Your task to perform on an android device: open app "Spotify: Music and Podcasts" Image 0: 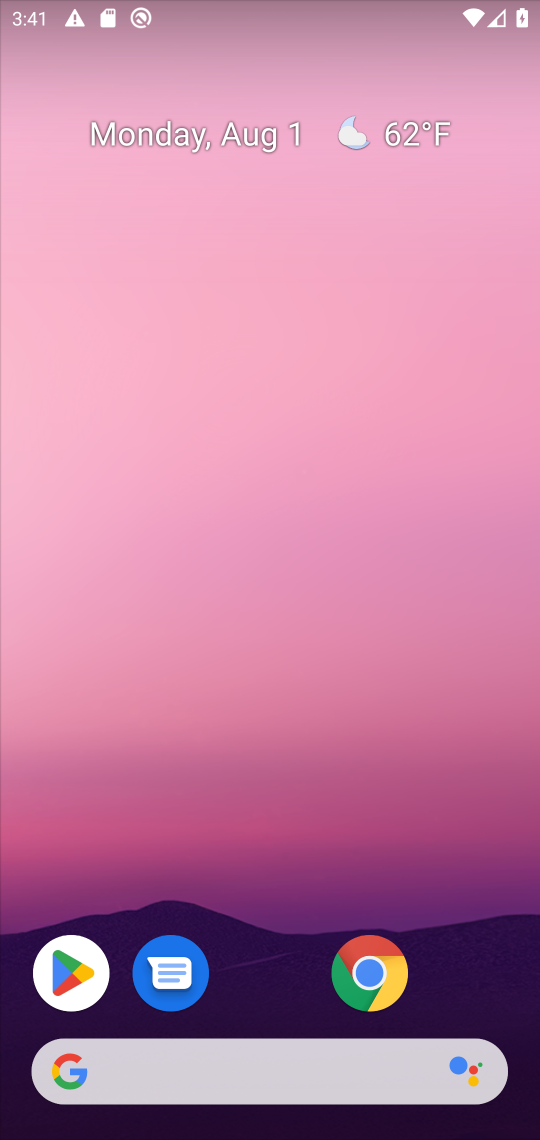
Step 0: click (267, 388)
Your task to perform on an android device: open app "Spotify: Music and Podcasts" Image 1: 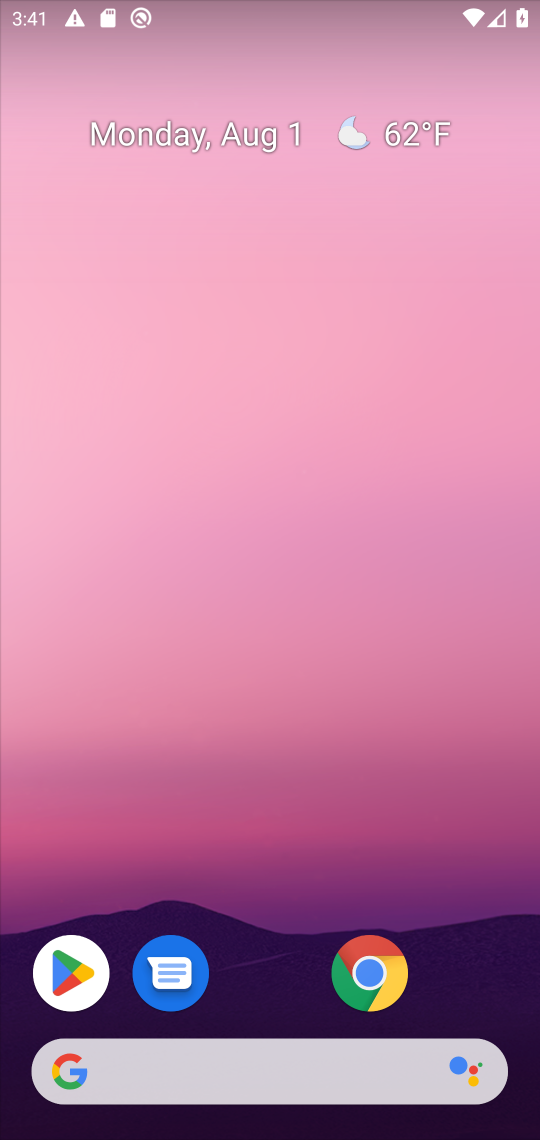
Step 1: drag from (163, 601) to (61, 142)
Your task to perform on an android device: open app "Spotify: Music and Podcasts" Image 2: 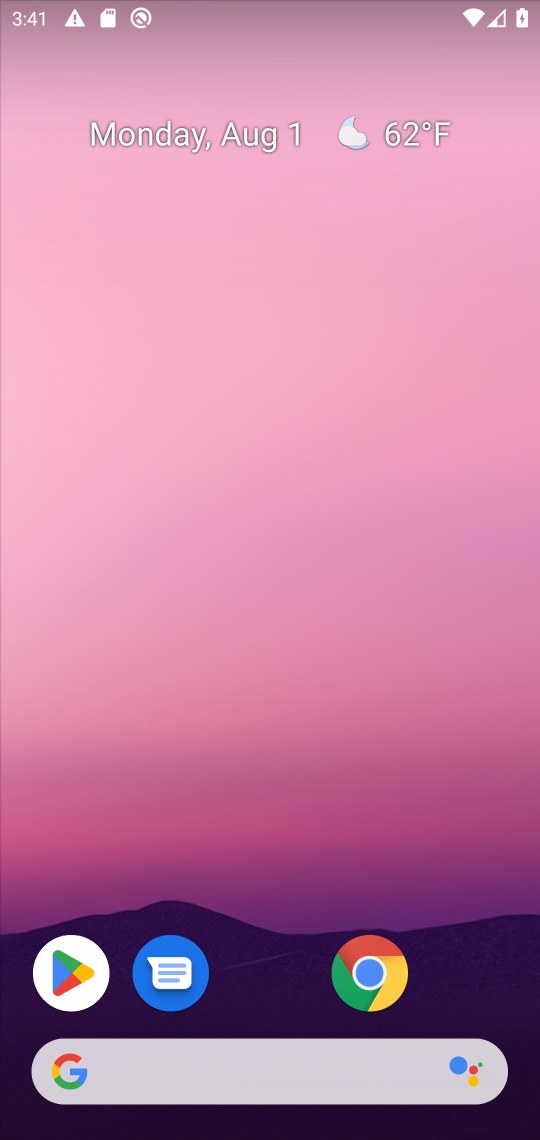
Step 2: drag from (206, 544) to (158, 185)
Your task to perform on an android device: open app "Spotify: Music and Podcasts" Image 3: 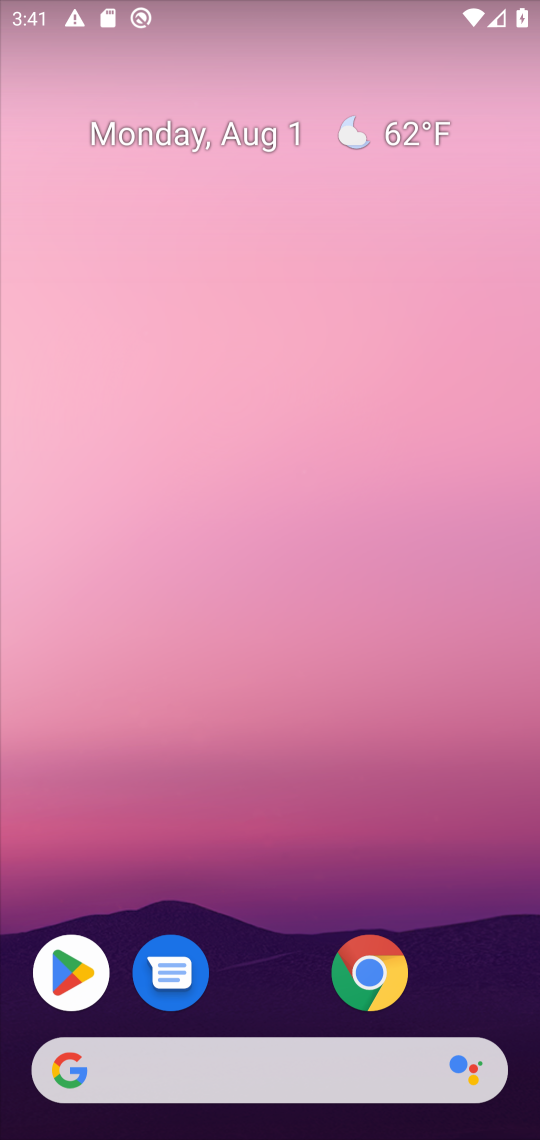
Step 3: drag from (271, 682) to (297, 201)
Your task to perform on an android device: open app "Spotify: Music and Podcasts" Image 4: 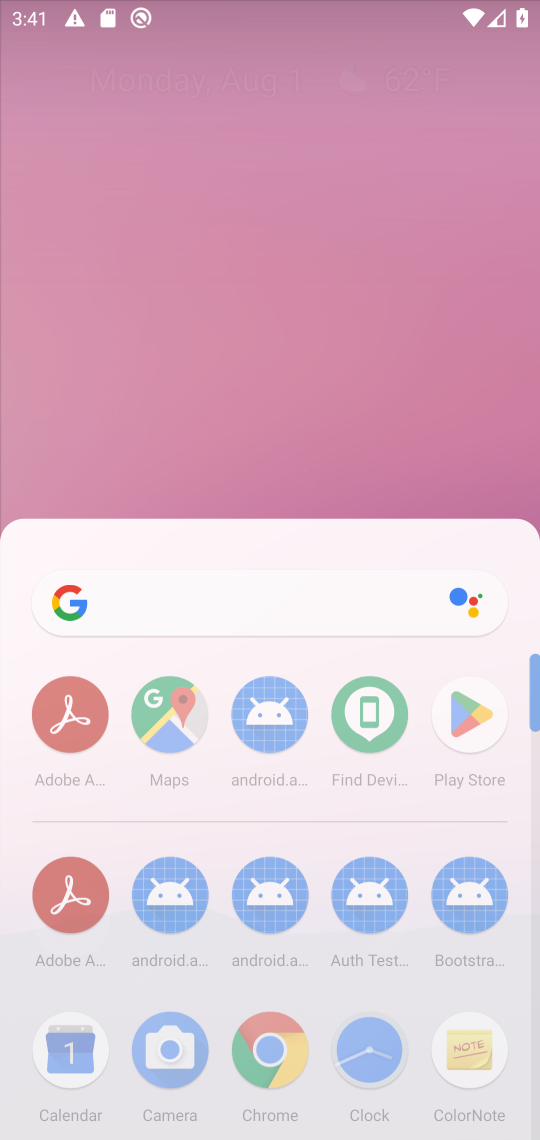
Step 4: drag from (372, 590) to (368, 288)
Your task to perform on an android device: open app "Spotify: Music and Podcasts" Image 5: 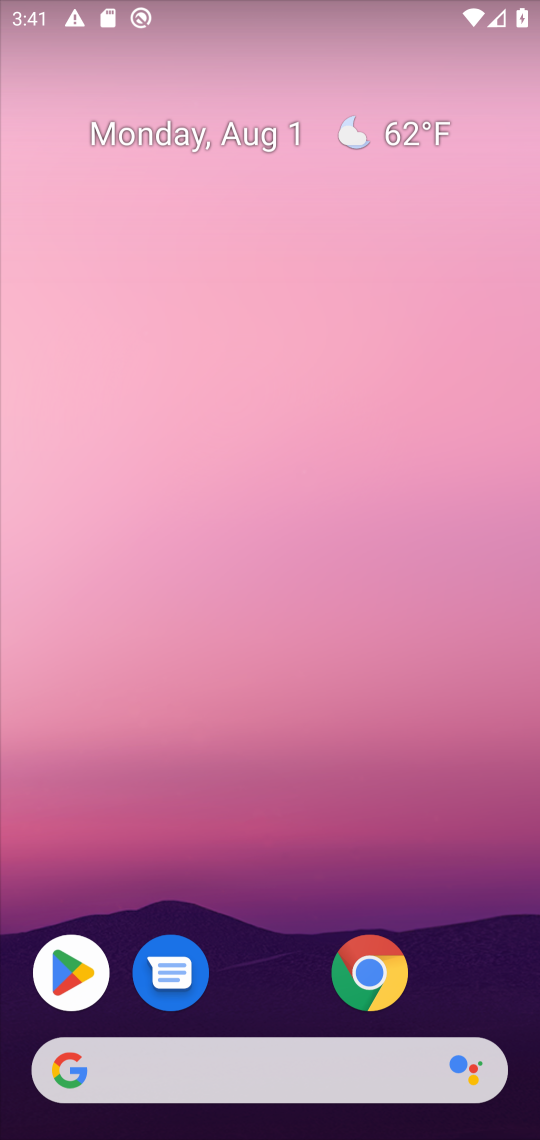
Step 5: drag from (248, 813) to (179, 254)
Your task to perform on an android device: open app "Spotify: Music and Podcasts" Image 6: 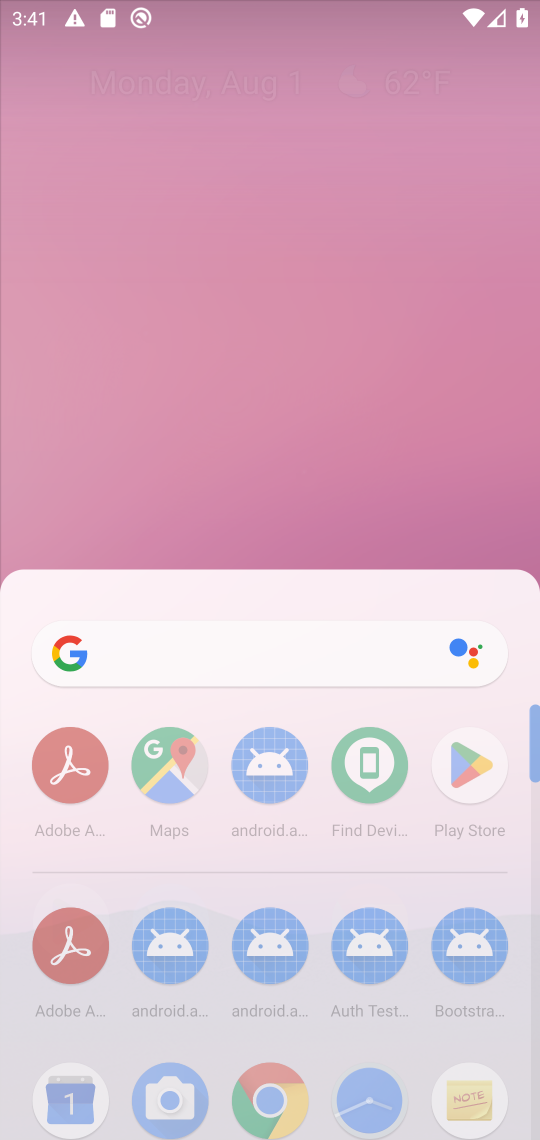
Step 6: drag from (258, 798) to (171, 324)
Your task to perform on an android device: open app "Spotify: Music and Podcasts" Image 7: 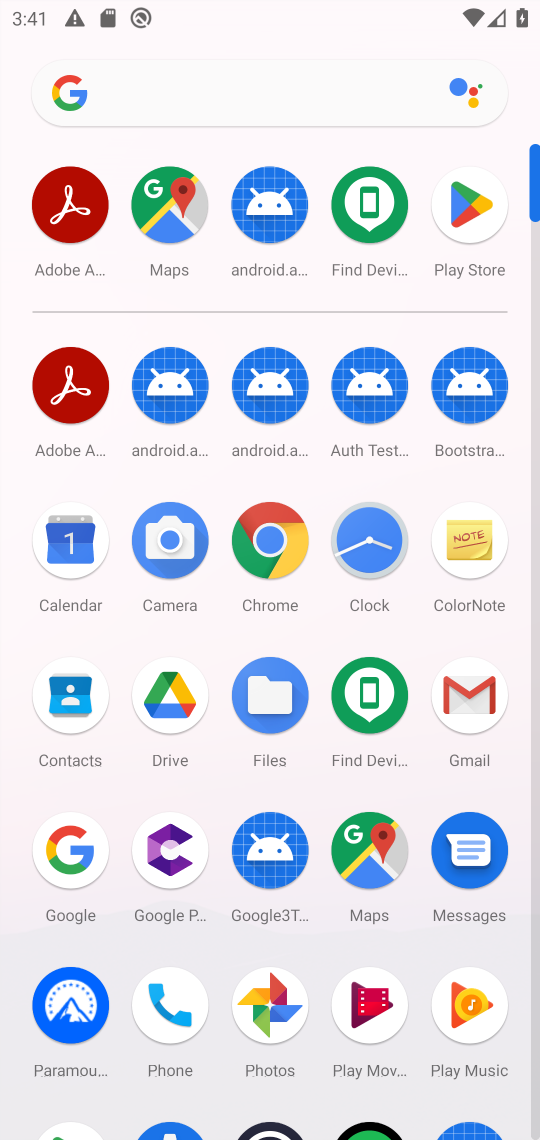
Step 7: drag from (200, 496) to (208, 258)
Your task to perform on an android device: open app "Spotify: Music and Podcasts" Image 8: 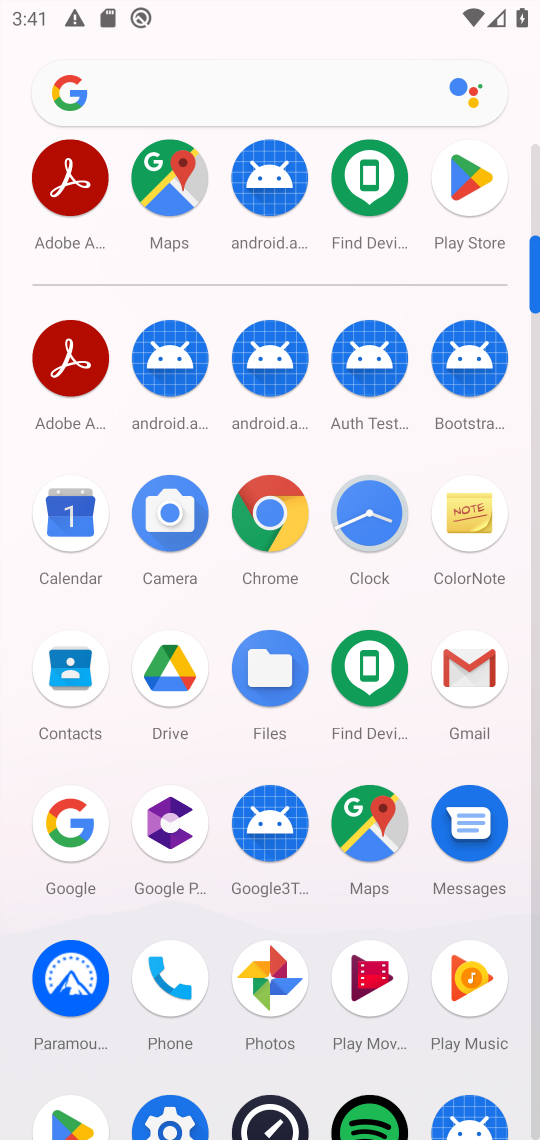
Step 8: click (471, 201)
Your task to perform on an android device: open app "Spotify: Music and Podcasts" Image 9: 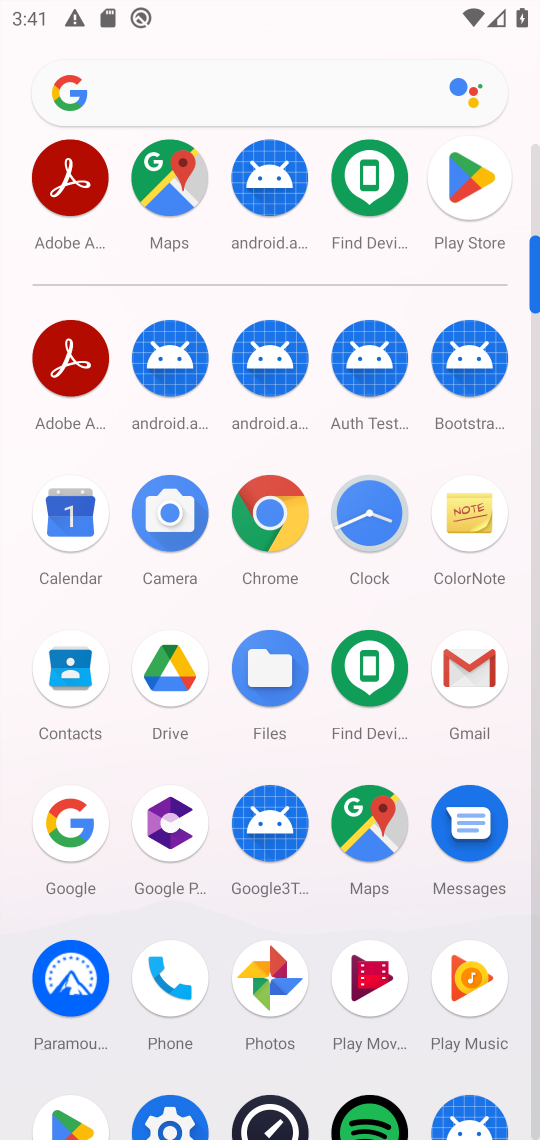
Step 9: click (467, 197)
Your task to perform on an android device: open app "Spotify: Music and Podcasts" Image 10: 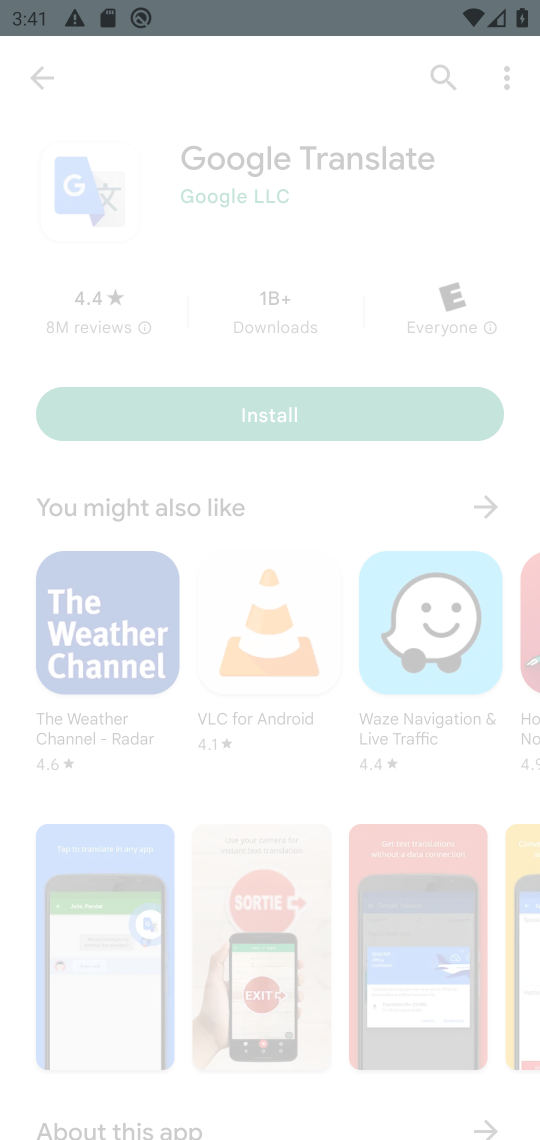
Step 10: click (463, 200)
Your task to perform on an android device: open app "Spotify: Music and Podcasts" Image 11: 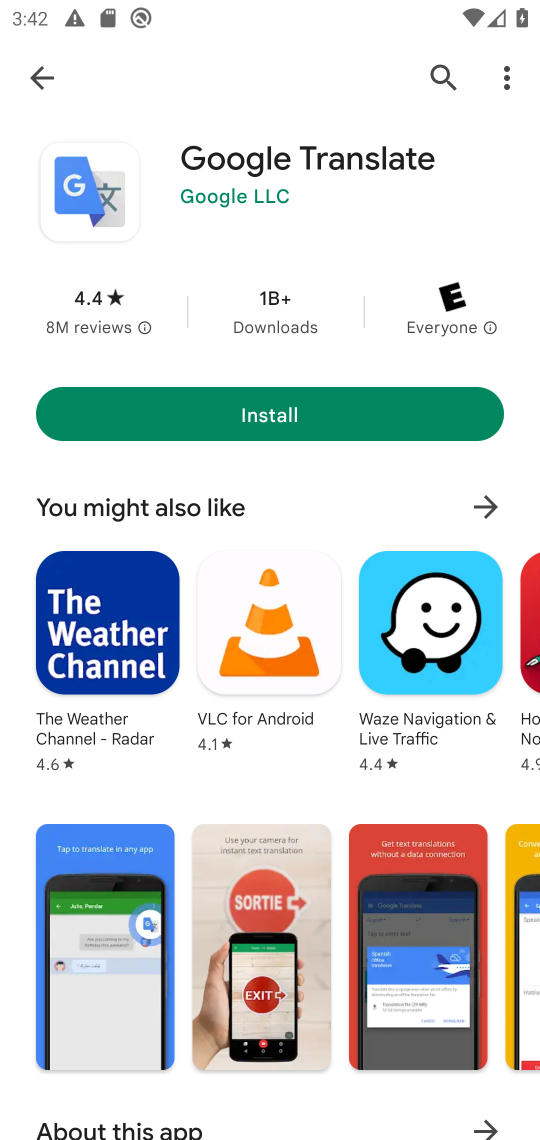
Step 11: click (45, 84)
Your task to perform on an android device: open app "Spotify: Music and Podcasts" Image 12: 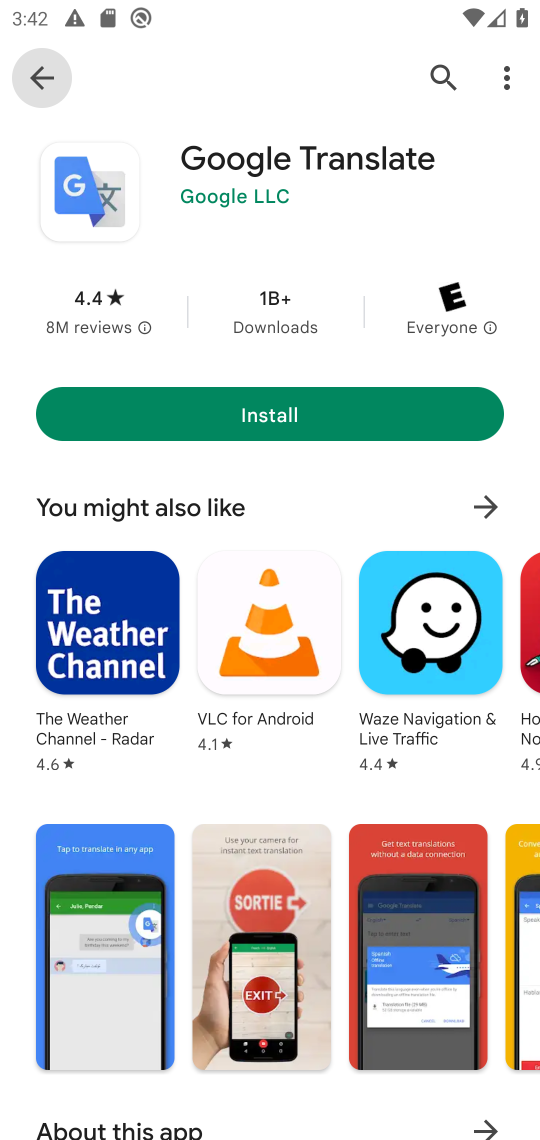
Step 12: click (42, 88)
Your task to perform on an android device: open app "Spotify: Music and Podcasts" Image 13: 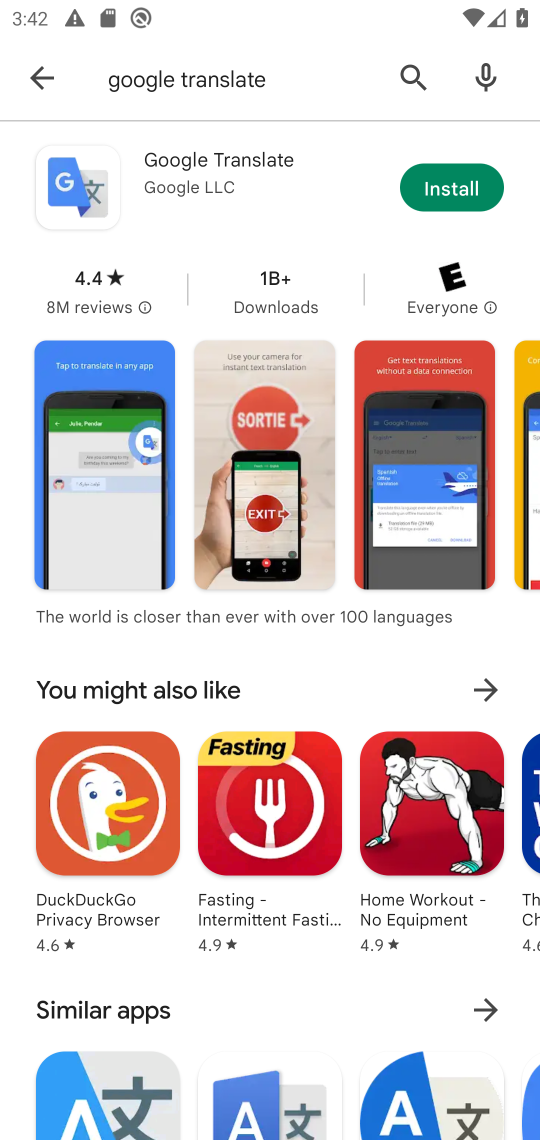
Step 13: click (57, 71)
Your task to perform on an android device: open app "Spotify: Music and Podcasts" Image 14: 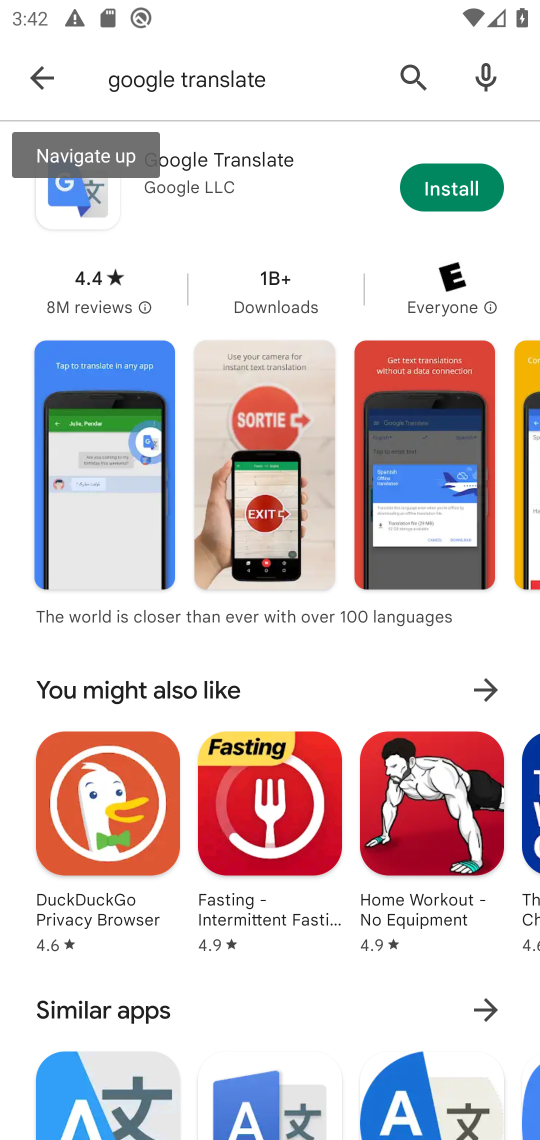
Step 14: click (29, 77)
Your task to perform on an android device: open app "Spotify: Music and Podcasts" Image 15: 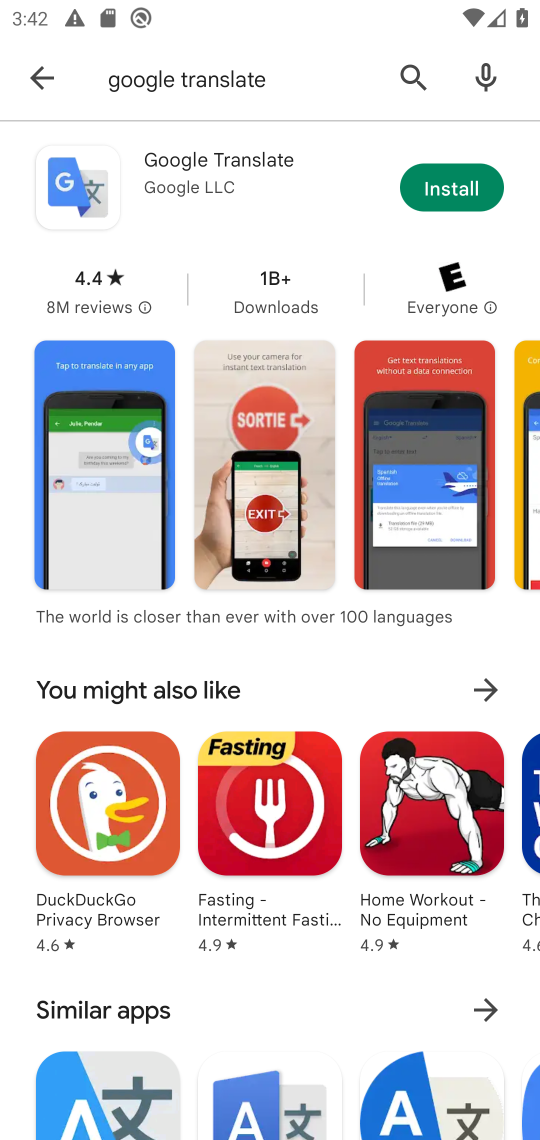
Step 15: click (47, 91)
Your task to perform on an android device: open app "Spotify: Music and Podcasts" Image 16: 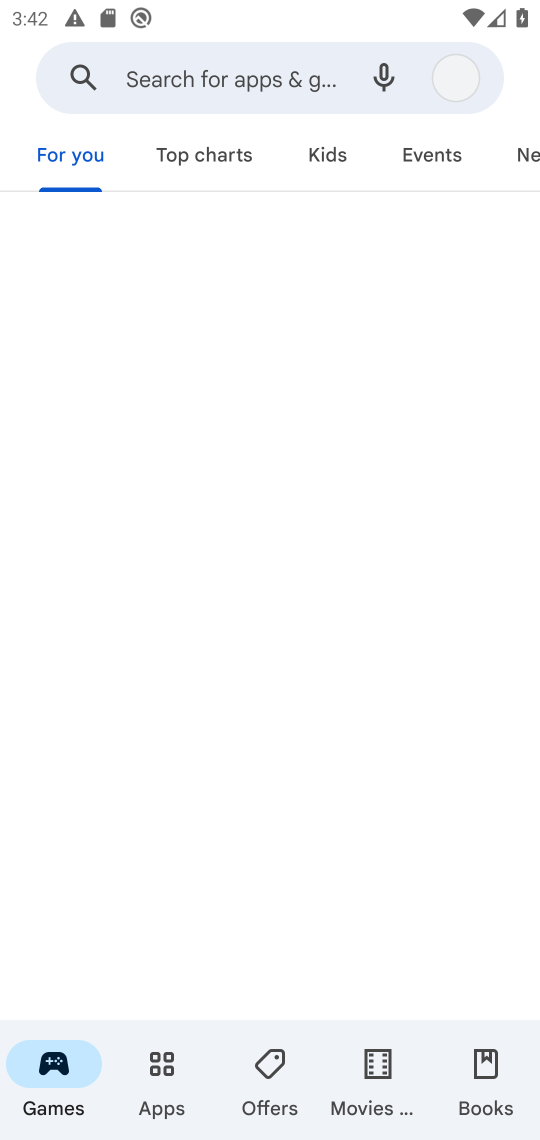
Step 16: click (13, 99)
Your task to perform on an android device: open app "Spotify: Music and Podcasts" Image 17: 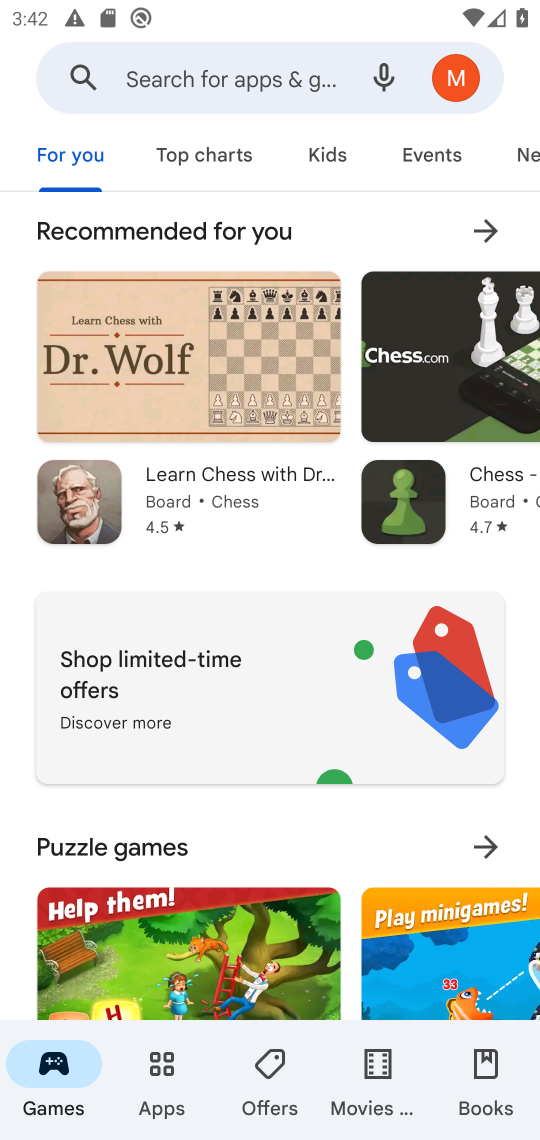
Step 17: click (162, 75)
Your task to perform on an android device: open app "Spotify: Music and Podcasts" Image 18: 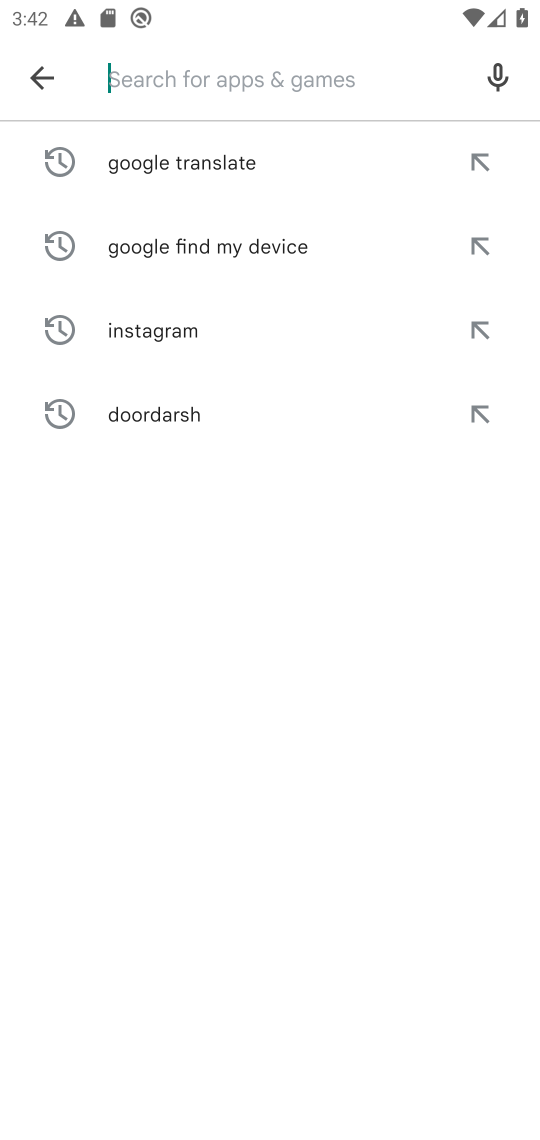
Step 18: click (162, 75)
Your task to perform on an android device: open app "Spotify: Music and Podcasts" Image 19: 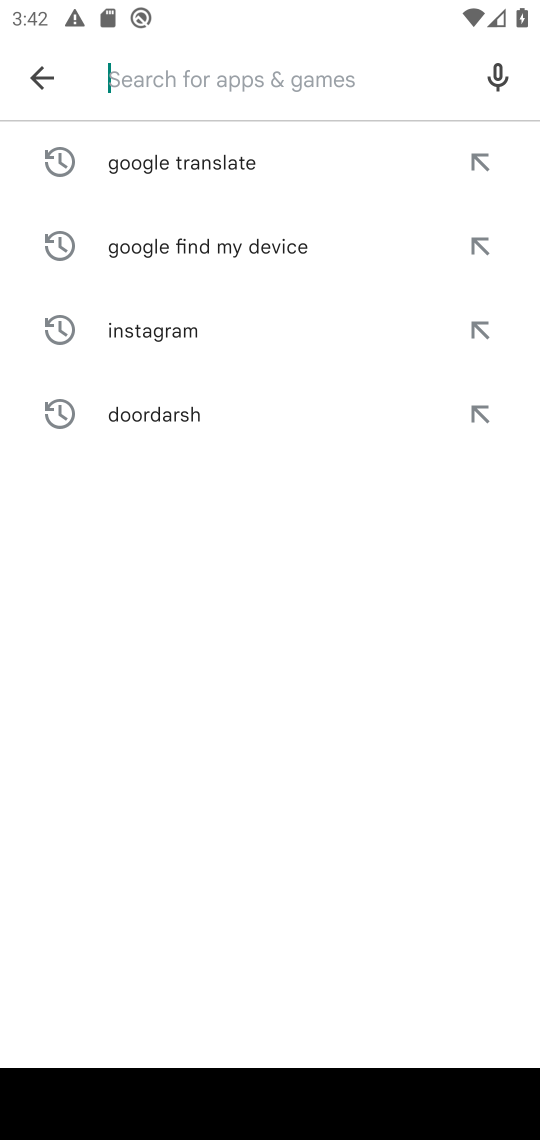
Step 19: type "spotify"
Your task to perform on an android device: open app "Spotify: Music and Podcasts" Image 20: 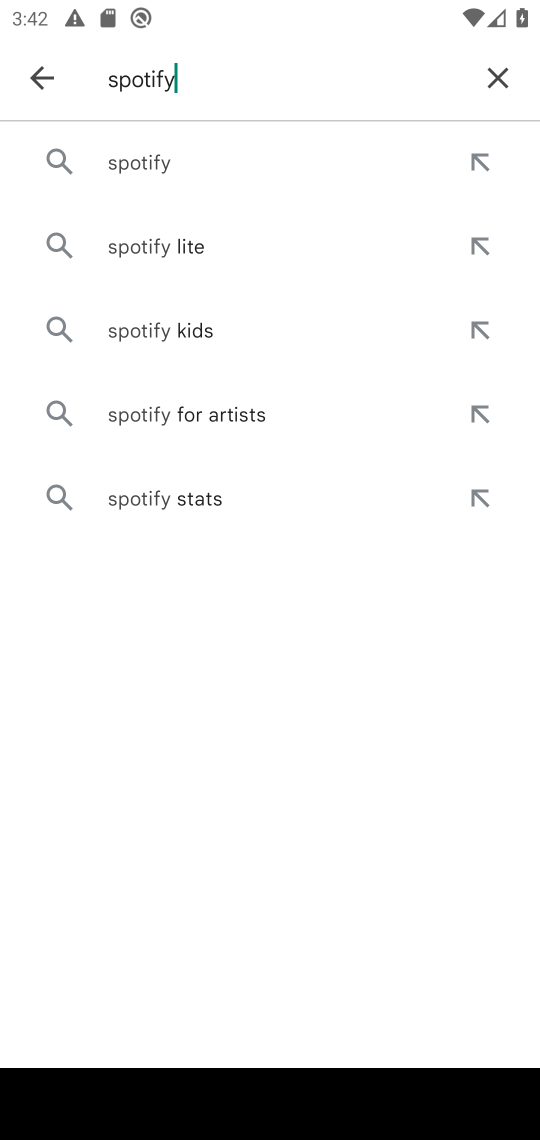
Step 20: click (137, 160)
Your task to perform on an android device: open app "Spotify: Music and Podcasts" Image 21: 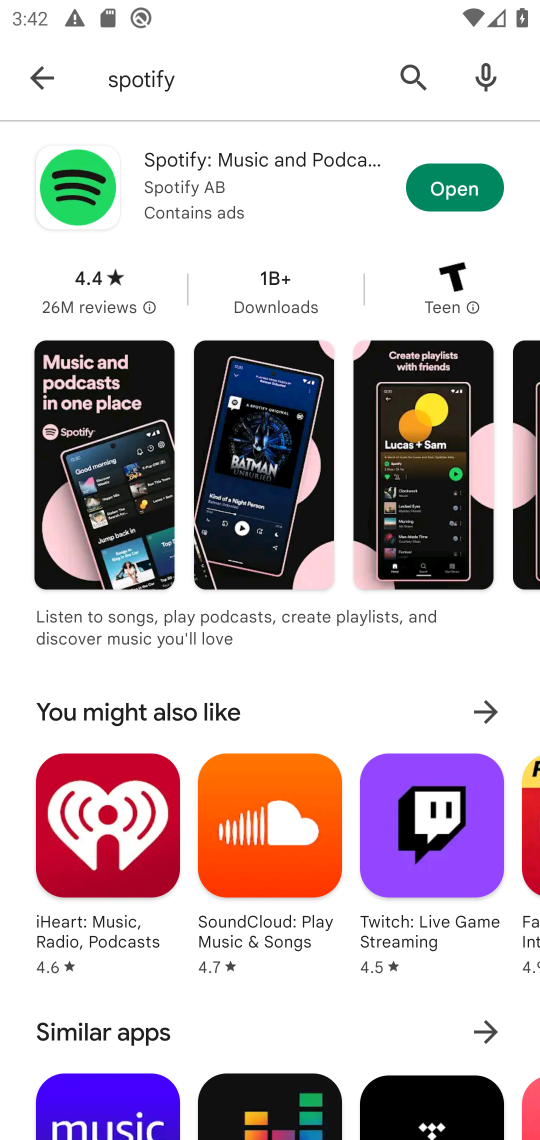
Step 21: click (447, 177)
Your task to perform on an android device: open app "Spotify: Music and Podcasts" Image 22: 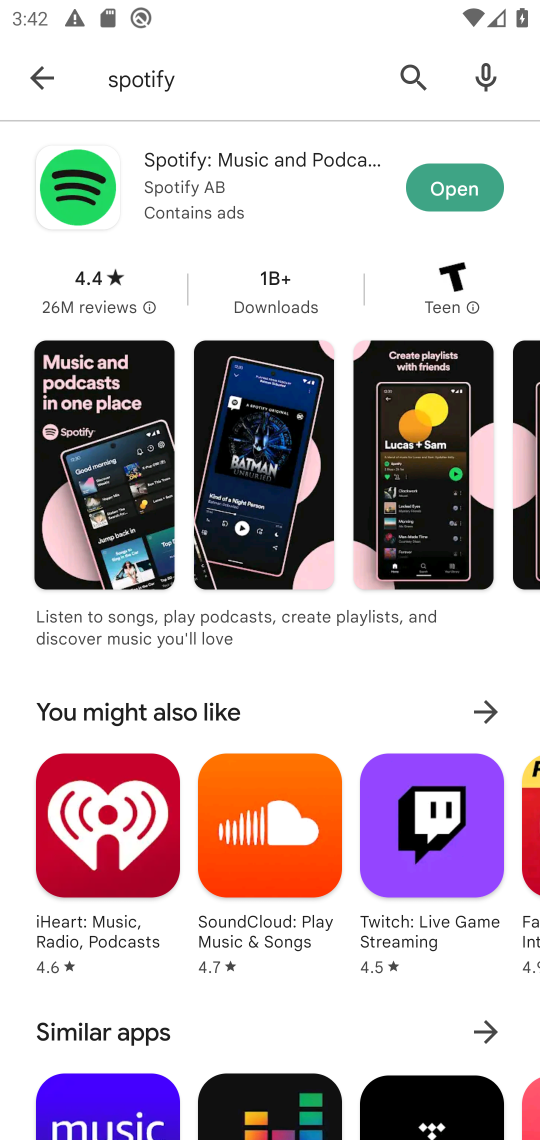
Step 22: click (457, 194)
Your task to perform on an android device: open app "Spotify: Music and Podcasts" Image 23: 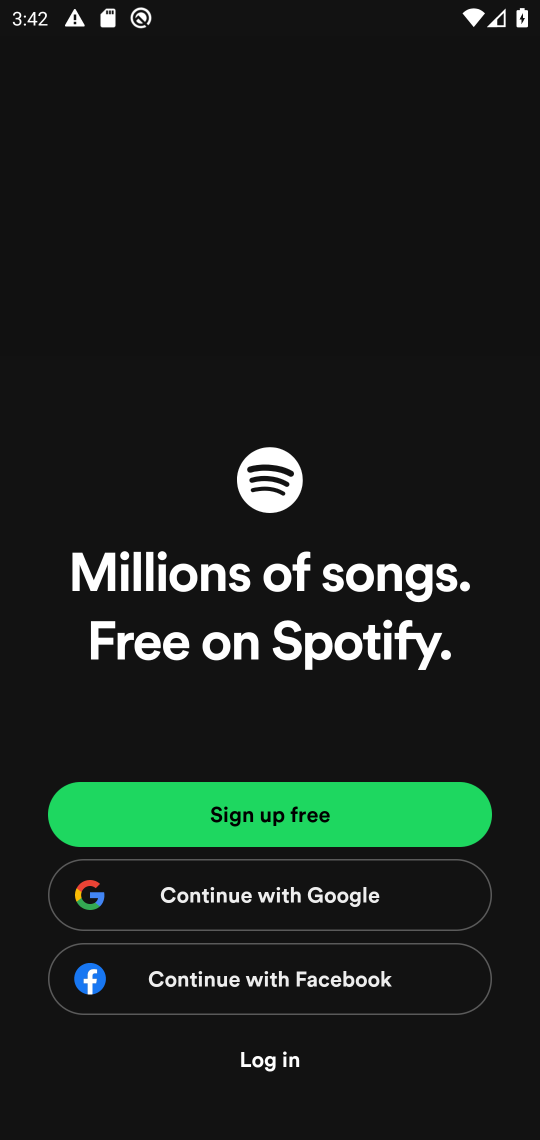
Step 23: task complete